Your task to perform on an android device: open a bookmark in the chrome app Image 0: 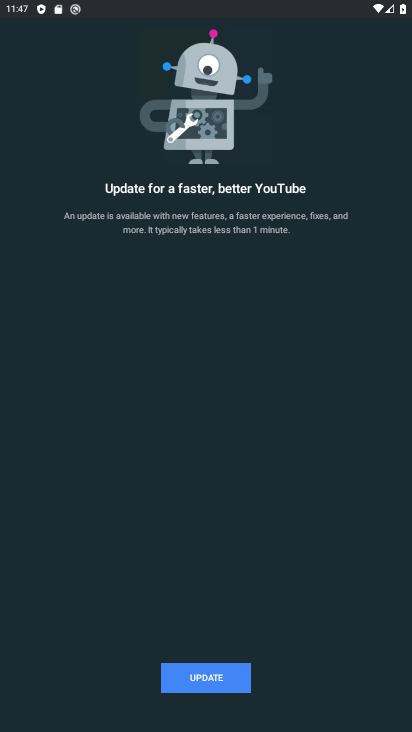
Step 0: press home button
Your task to perform on an android device: open a bookmark in the chrome app Image 1: 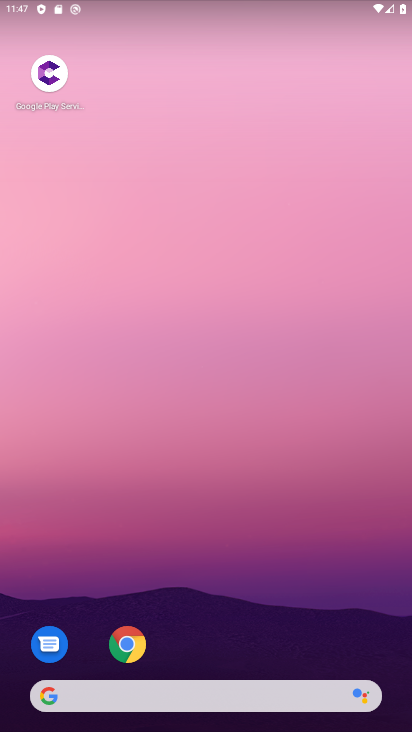
Step 1: click (126, 640)
Your task to perform on an android device: open a bookmark in the chrome app Image 2: 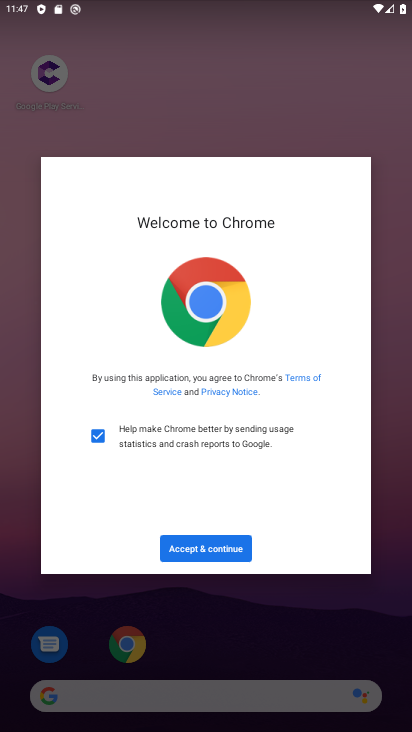
Step 2: click (210, 547)
Your task to perform on an android device: open a bookmark in the chrome app Image 3: 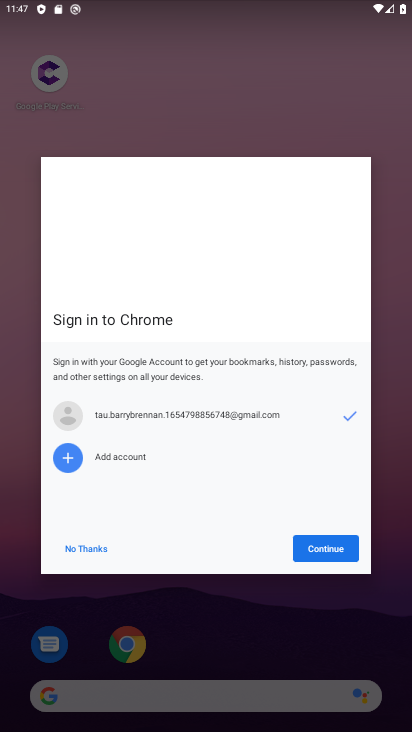
Step 3: click (315, 545)
Your task to perform on an android device: open a bookmark in the chrome app Image 4: 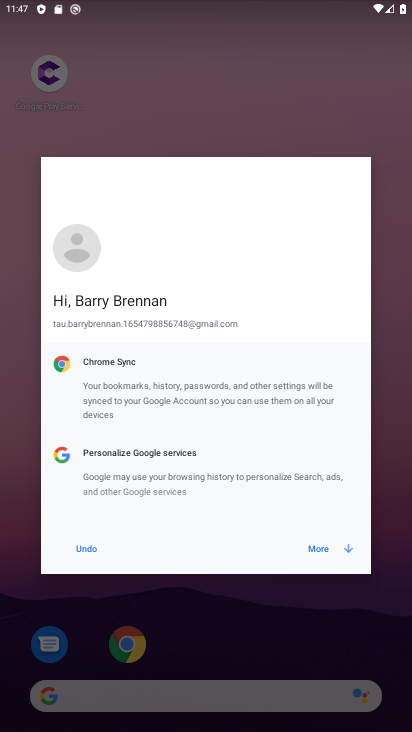
Step 4: click (316, 545)
Your task to perform on an android device: open a bookmark in the chrome app Image 5: 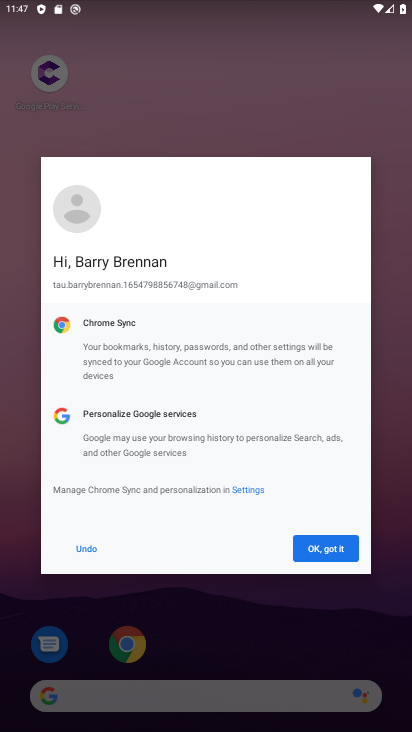
Step 5: click (323, 550)
Your task to perform on an android device: open a bookmark in the chrome app Image 6: 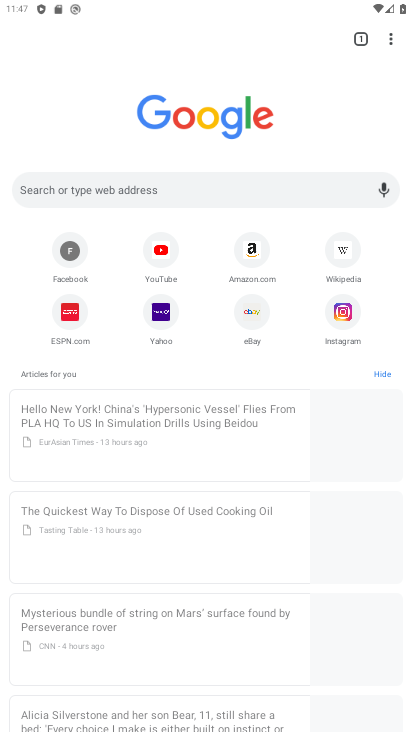
Step 6: click (391, 42)
Your task to perform on an android device: open a bookmark in the chrome app Image 7: 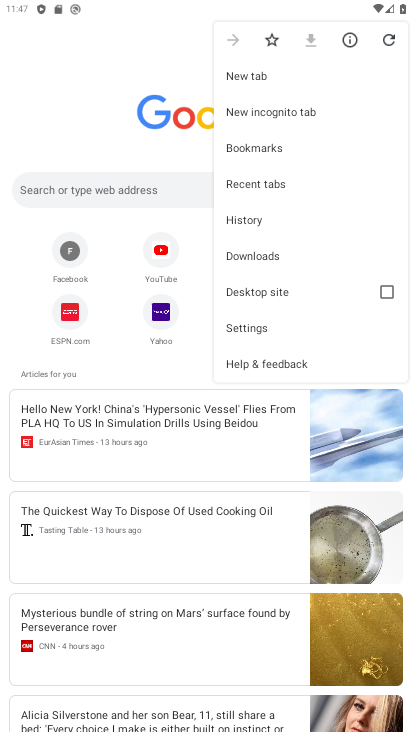
Step 7: click (245, 143)
Your task to perform on an android device: open a bookmark in the chrome app Image 8: 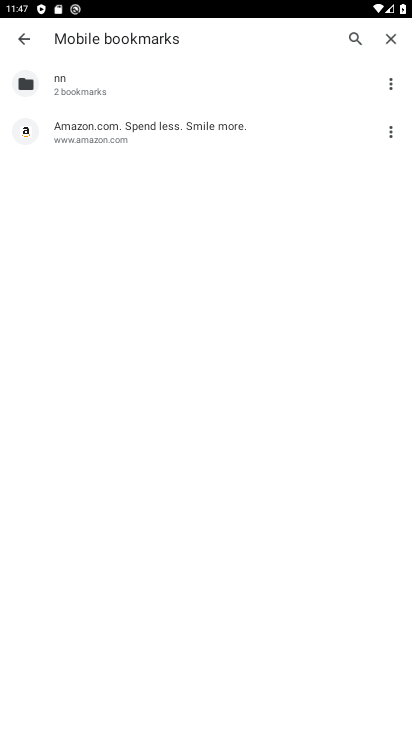
Step 8: task complete